Your task to perform on an android device: turn on priority inbox in the gmail app Image 0: 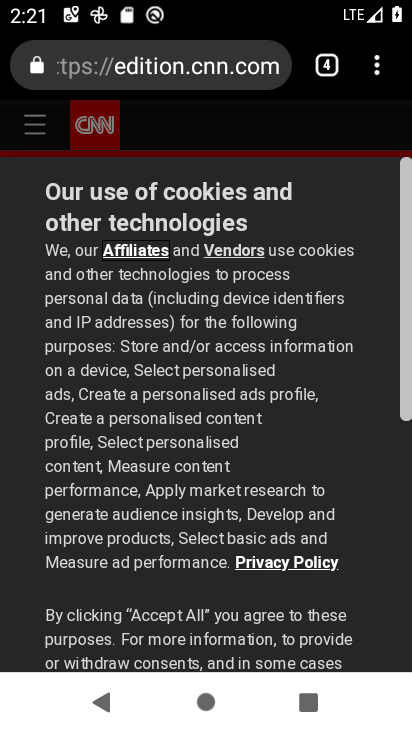
Step 0: press home button
Your task to perform on an android device: turn on priority inbox in the gmail app Image 1: 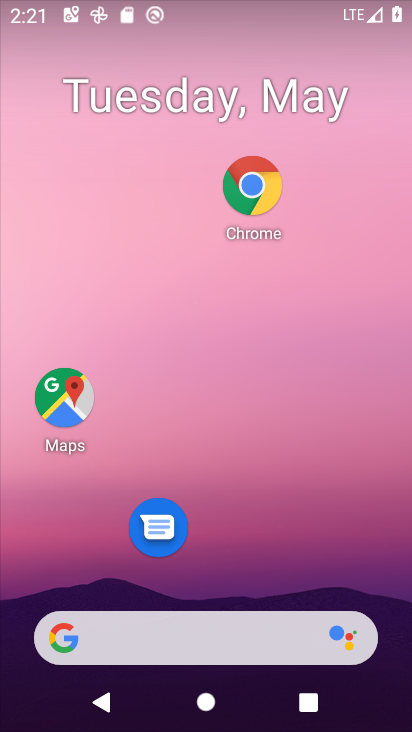
Step 1: drag from (243, 524) to (147, 209)
Your task to perform on an android device: turn on priority inbox in the gmail app Image 2: 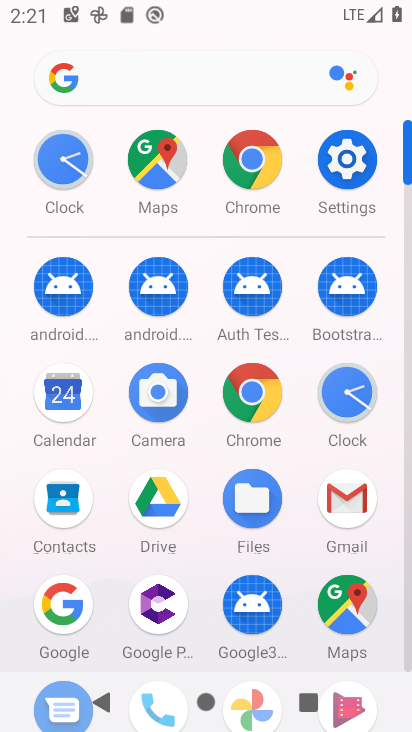
Step 2: click (345, 487)
Your task to perform on an android device: turn on priority inbox in the gmail app Image 3: 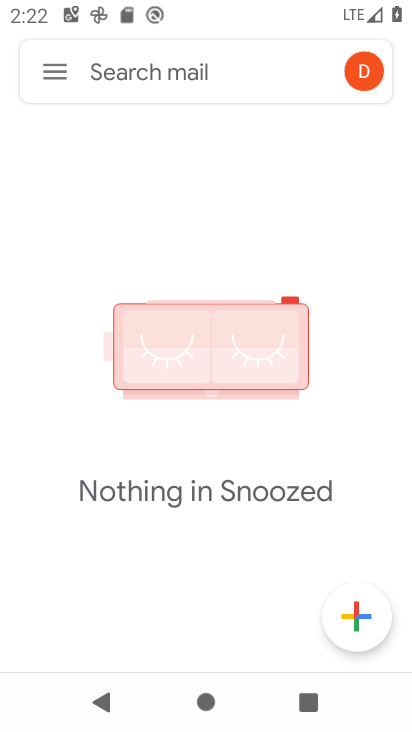
Step 3: click (52, 75)
Your task to perform on an android device: turn on priority inbox in the gmail app Image 4: 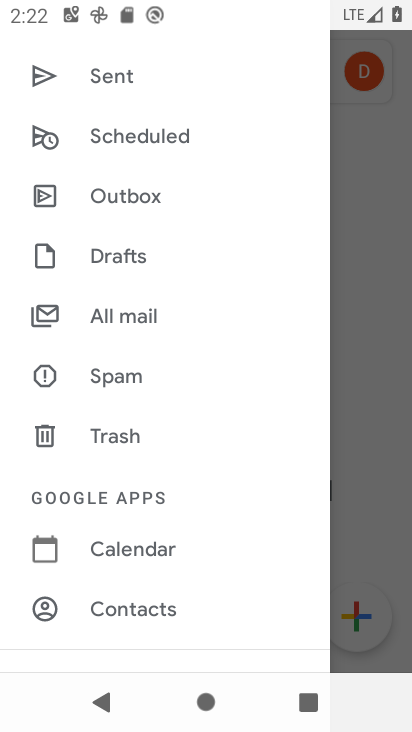
Step 4: drag from (168, 328) to (240, 705)
Your task to perform on an android device: turn on priority inbox in the gmail app Image 5: 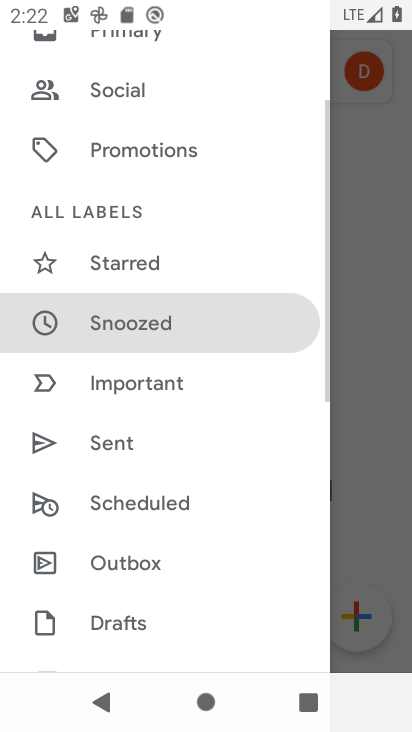
Step 5: drag from (205, 523) to (165, 271)
Your task to perform on an android device: turn on priority inbox in the gmail app Image 6: 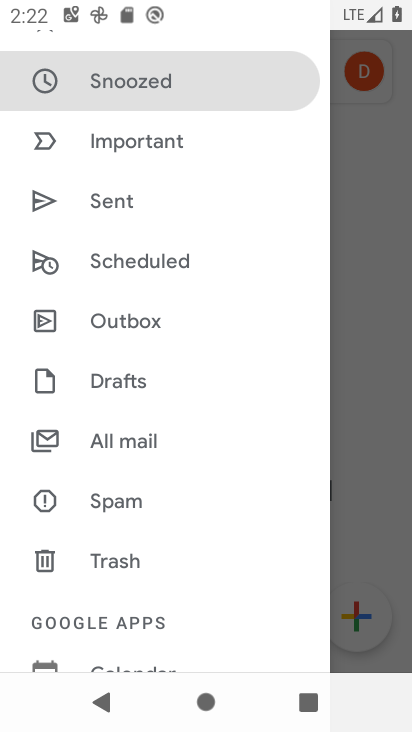
Step 6: drag from (167, 445) to (154, 237)
Your task to perform on an android device: turn on priority inbox in the gmail app Image 7: 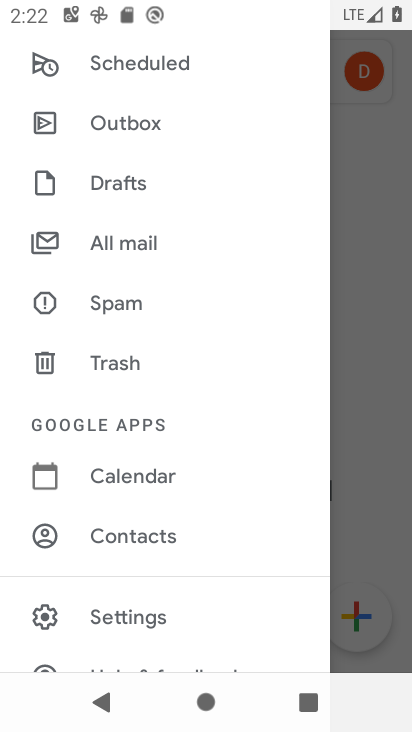
Step 7: drag from (144, 601) to (94, 412)
Your task to perform on an android device: turn on priority inbox in the gmail app Image 8: 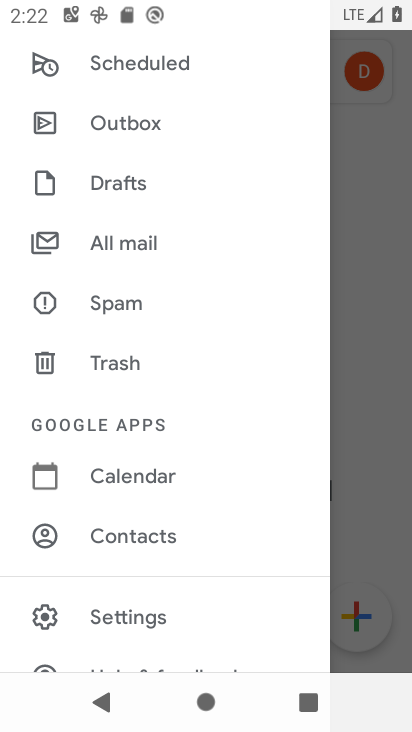
Step 8: click (135, 611)
Your task to perform on an android device: turn on priority inbox in the gmail app Image 9: 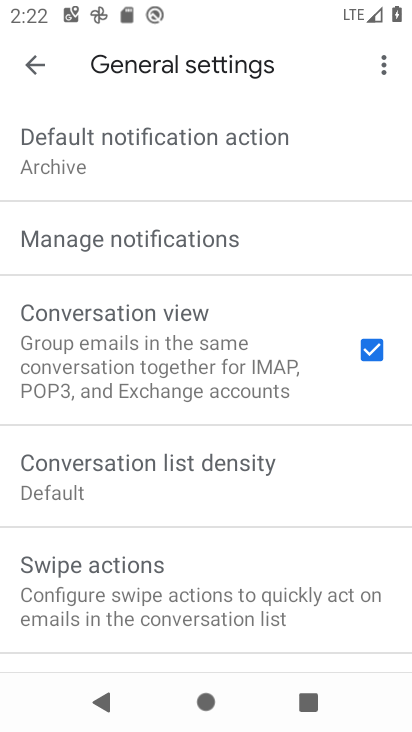
Step 9: click (30, 62)
Your task to perform on an android device: turn on priority inbox in the gmail app Image 10: 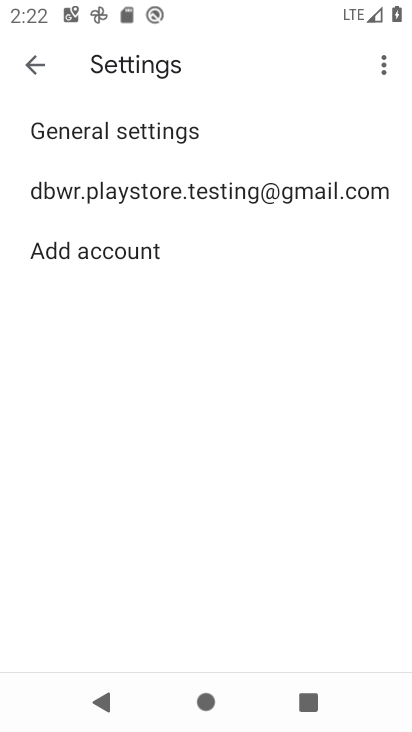
Step 10: click (109, 196)
Your task to perform on an android device: turn on priority inbox in the gmail app Image 11: 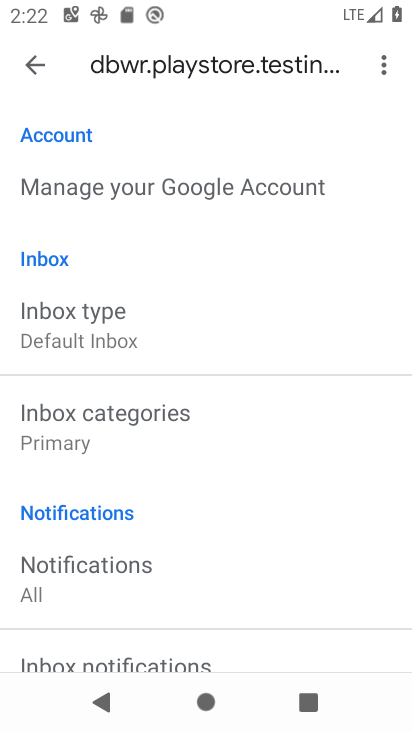
Step 11: click (78, 329)
Your task to perform on an android device: turn on priority inbox in the gmail app Image 12: 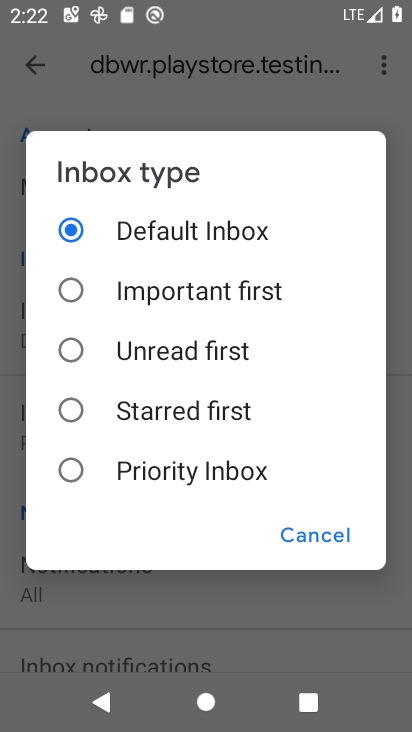
Step 12: click (71, 472)
Your task to perform on an android device: turn on priority inbox in the gmail app Image 13: 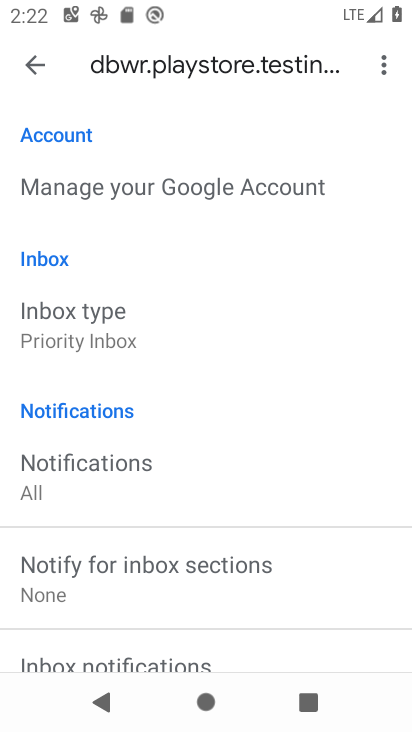
Step 13: task complete